Your task to perform on an android device: change keyboard looks Image 0: 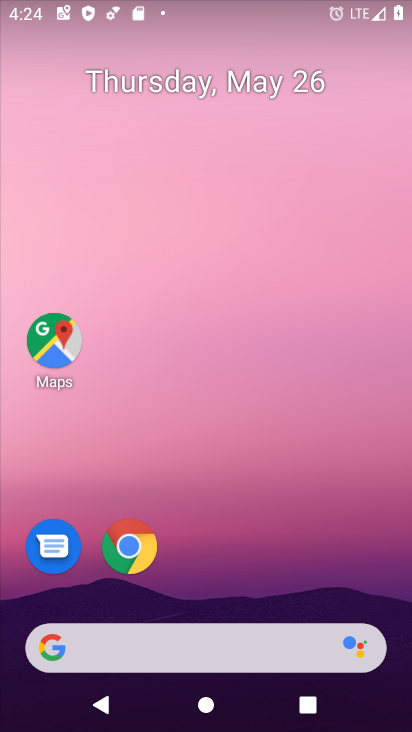
Step 0: drag from (192, 584) to (265, 2)
Your task to perform on an android device: change keyboard looks Image 1: 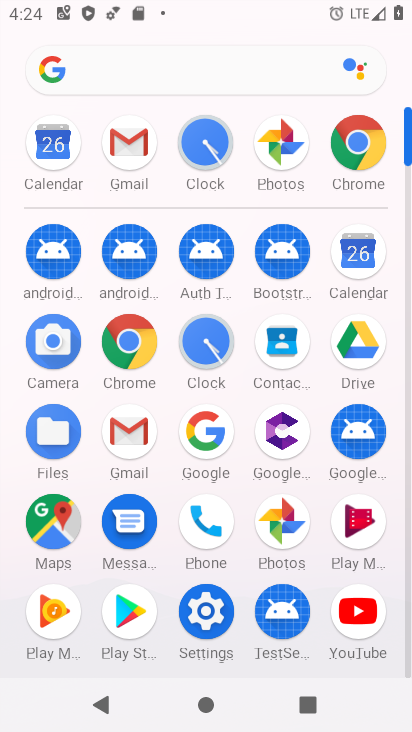
Step 1: click (202, 629)
Your task to perform on an android device: change keyboard looks Image 2: 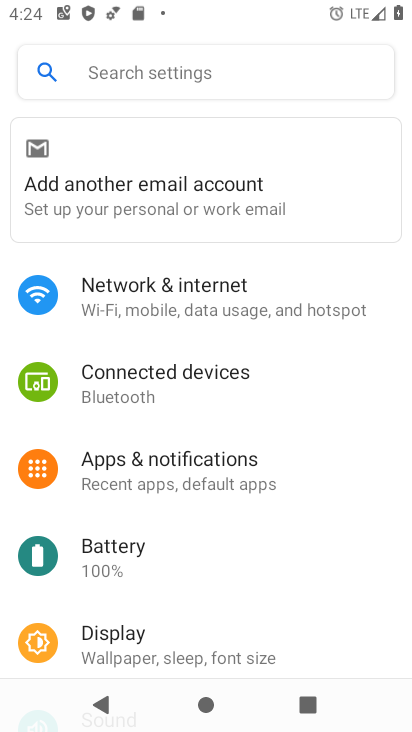
Step 2: drag from (195, 564) to (305, 36)
Your task to perform on an android device: change keyboard looks Image 3: 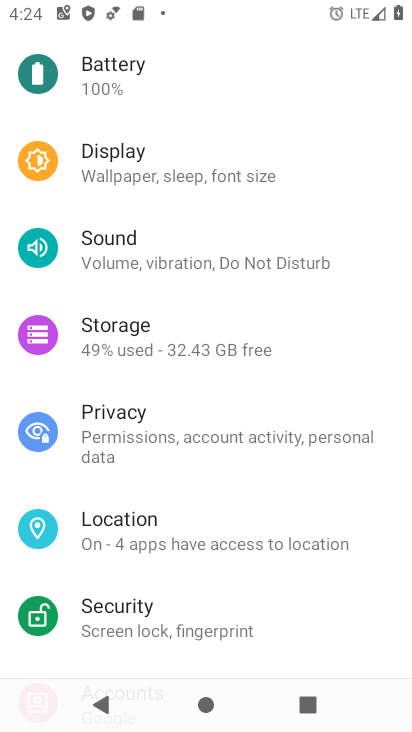
Step 3: drag from (226, 610) to (320, 67)
Your task to perform on an android device: change keyboard looks Image 4: 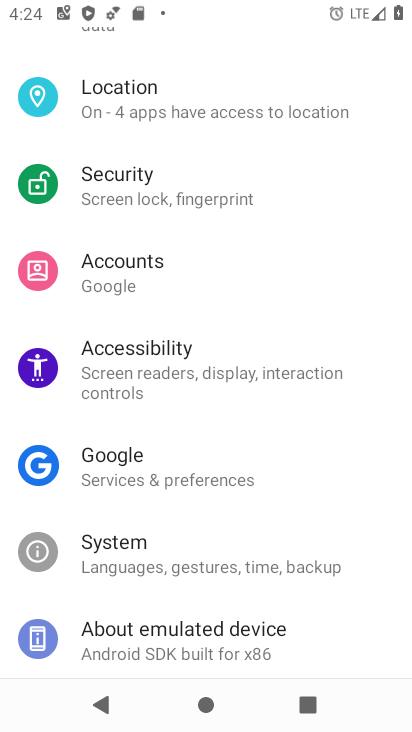
Step 4: click (127, 561)
Your task to perform on an android device: change keyboard looks Image 5: 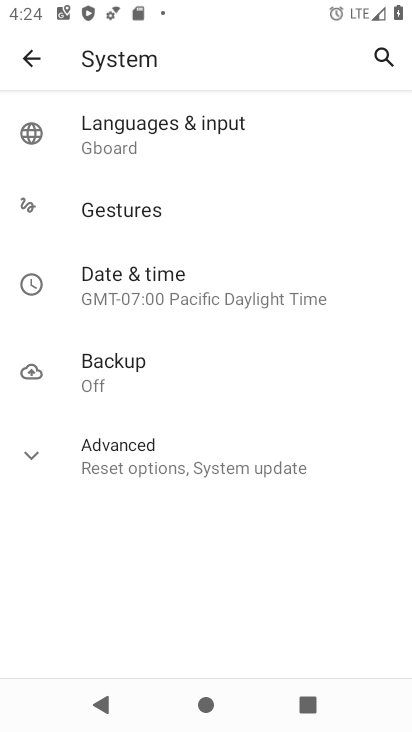
Step 5: click (115, 134)
Your task to perform on an android device: change keyboard looks Image 6: 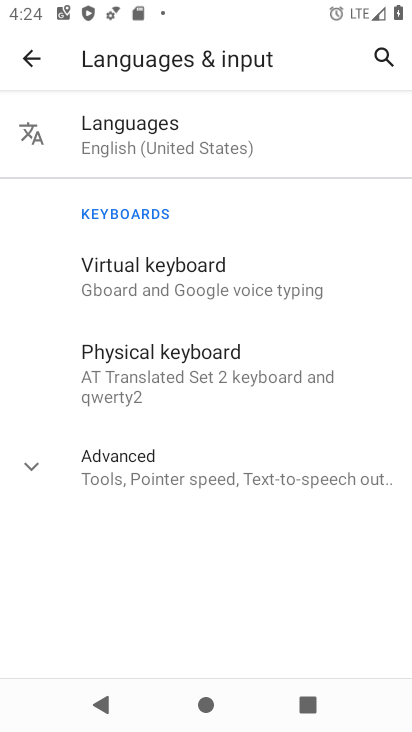
Step 6: click (169, 274)
Your task to perform on an android device: change keyboard looks Image 7: 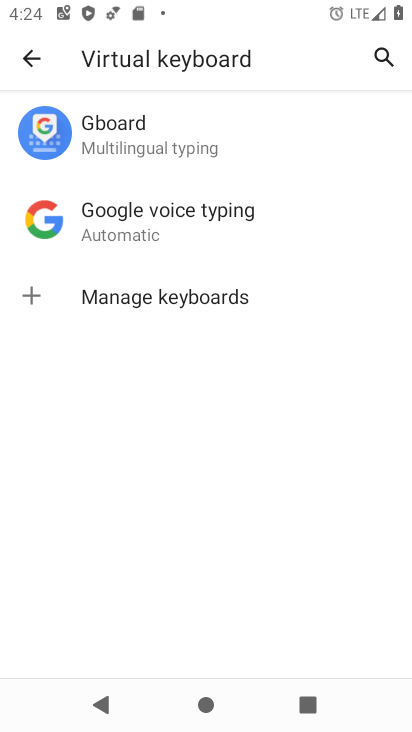
Step 7: click (113, 127)
Your task to perform on an android device: change keyboard looks Image 8: 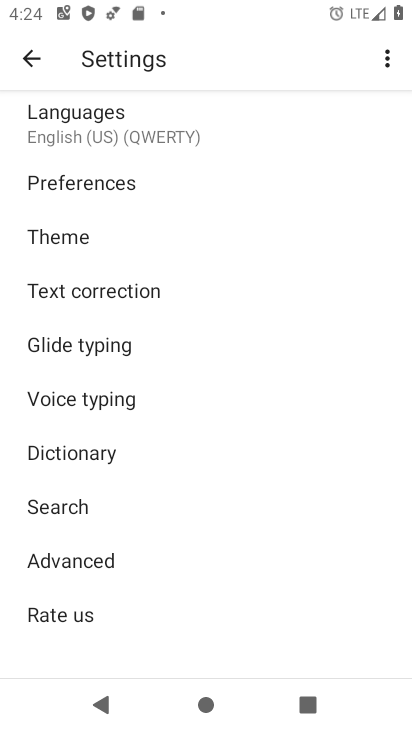
Step 8: click (82, 239)
Your task to perform on an android device: change keyboard looks Image 9: 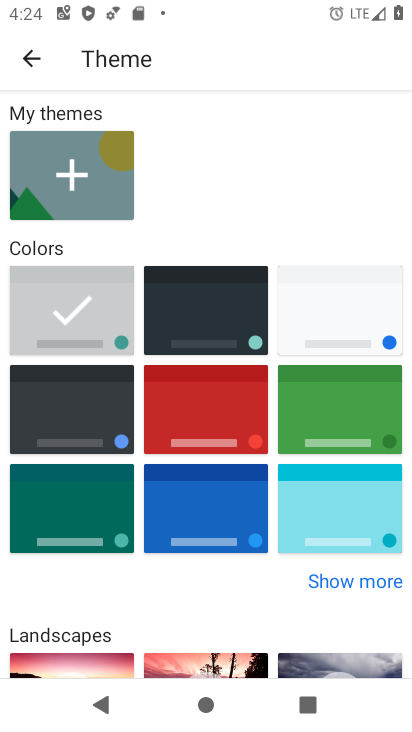
Step 9: click (206, 410)
Your task to perform on an android device: change keyboard looks Image 10: 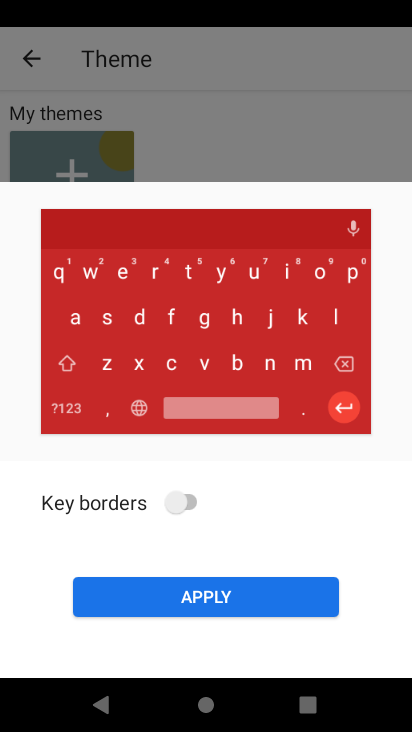
Step 10: click (185, 607)
Your task to perform on an android device: change keyboard looks Image 11: 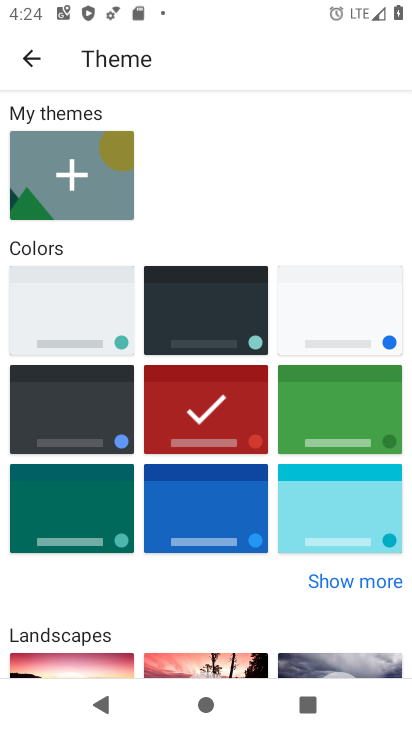
Step 11: task complete